Your task to perform on an android device: turn off notifications settings in the gmail app Image 0: 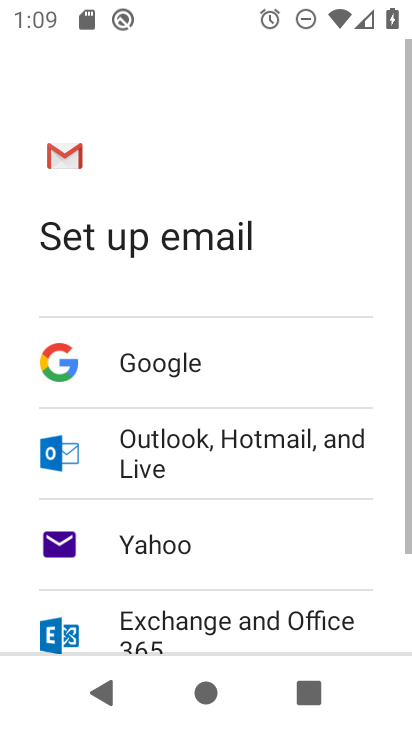
Step 0: press home button
Your task to perform on an android device: turn off notifications settings in the gmail app Image 1: 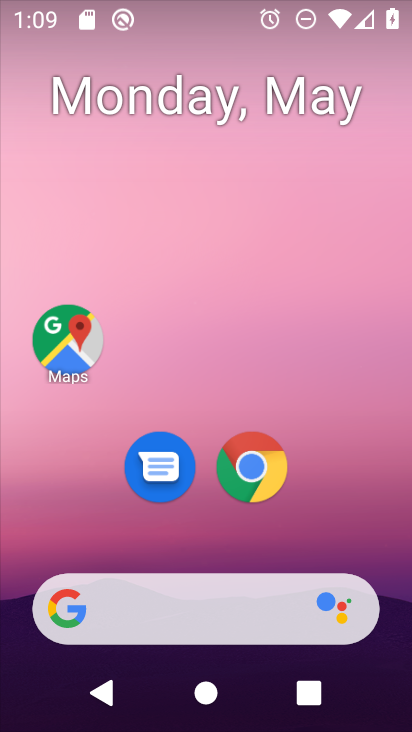
Step 1: drag from (384, 534) to (368, 6)
Your task to perform on an android device: turn off notifications settings in the gmail app Image 2: 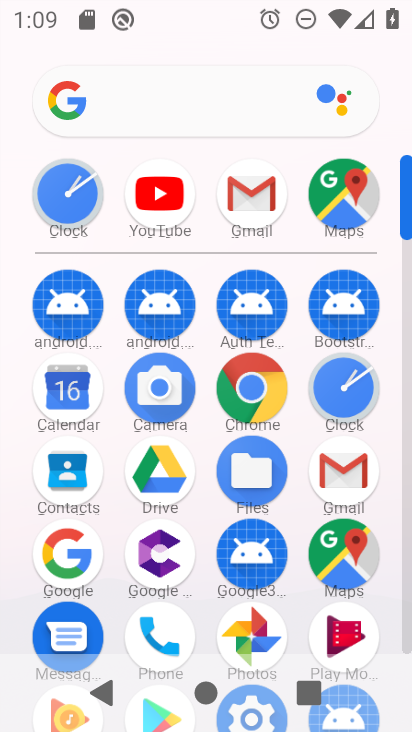
Step 2: click (245, 199)
Your task to perform on an android device: turn off notifications settings in the gmail app Image 3: 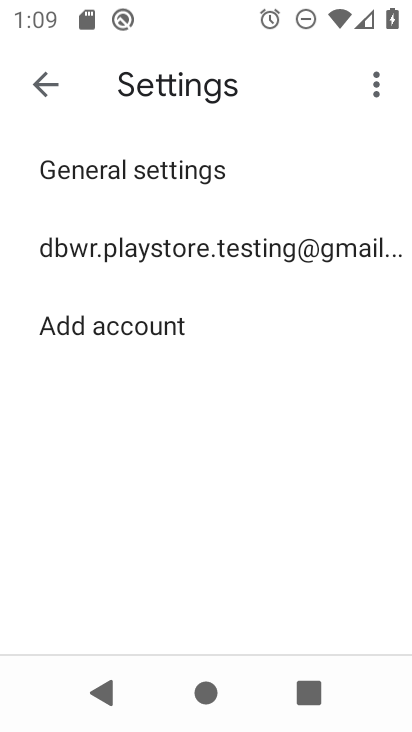
Step 3: click (76, 174)
Your task to perform on an android device: turn off notifications settings in the gmail app Image 4: 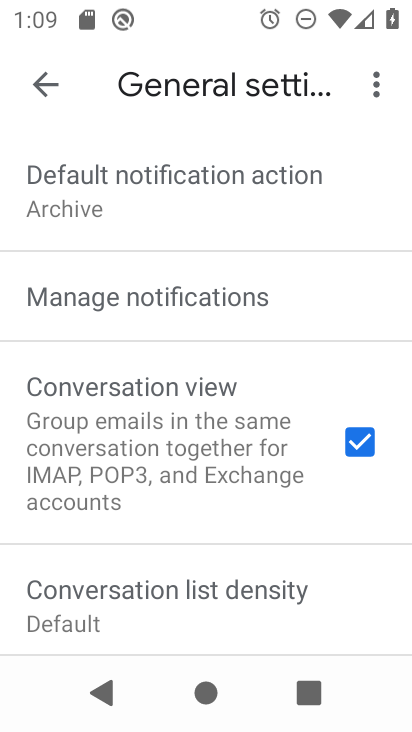
Step 4: click (131, 306)
Your task to perform on an android device: turn off notifications settings in the gmail app Image 5: 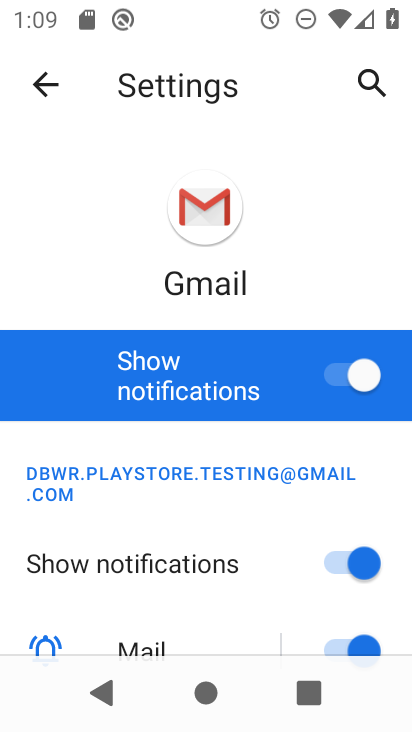
Step 5: click (362, 364)
Your task to perform on an android device: turn off notifications settings in the gmail app Image 6: 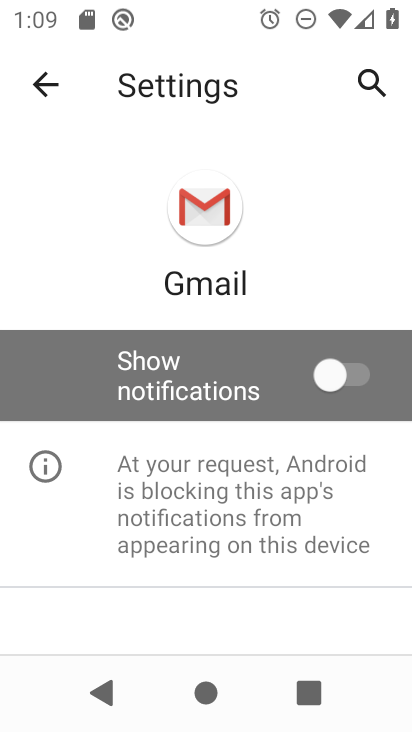
Step 6: task complete